Your task to perform on an android device: turn pop-ups off in chrome Image 0: 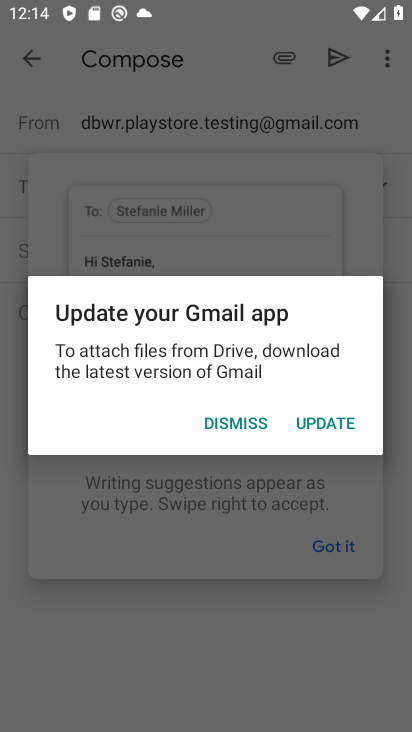
Step 0: press home button
Your task to perform on an android device: turn pop-ups off in chrome Image 1: 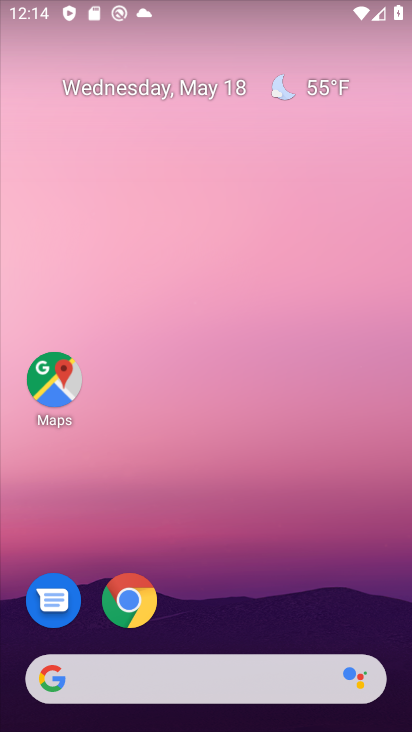
Step 1: click (131, 603)
Your task to perform on an android device: turn pop-ups off in chrome Image 2: 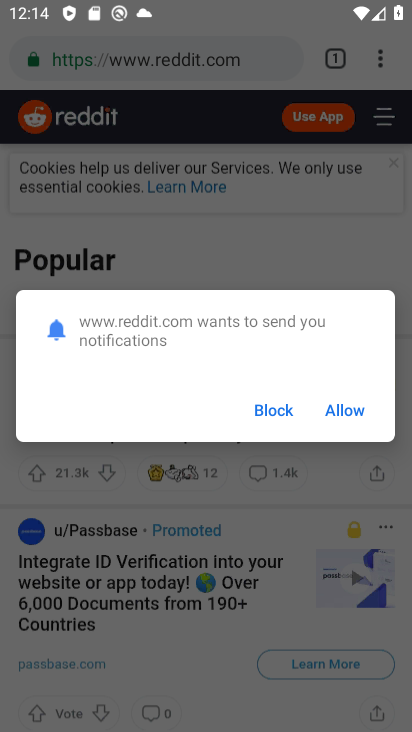
Step 2: click (345, 415)
Your task to perform on an android device: turn pop-ups off in chrome Image 3: 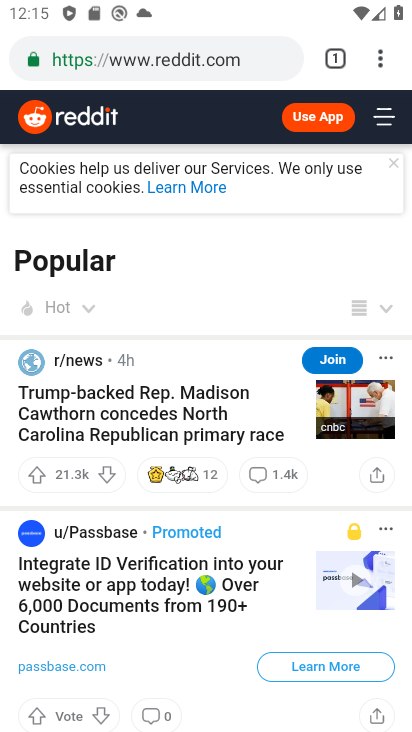
Step 3: drag from (378, 62) to (194, 627)
Your task to perform on an android device: turn pop-ups off in chrome Image 4: 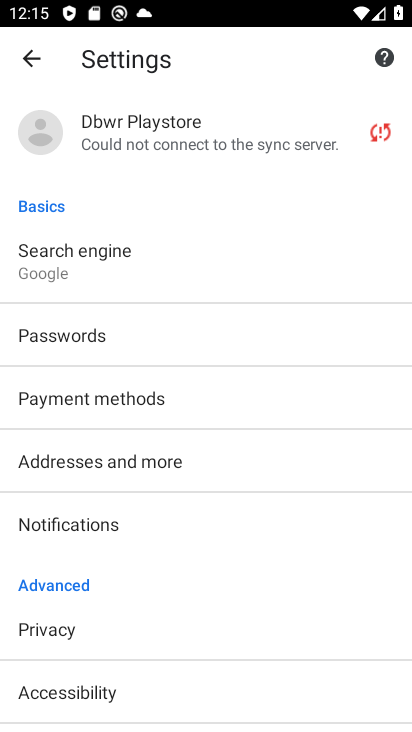
Step 4: drag from (94, 679) to (60, 178)
Your task to perform on an android device: turn pop-ups off in chrome Image 5: 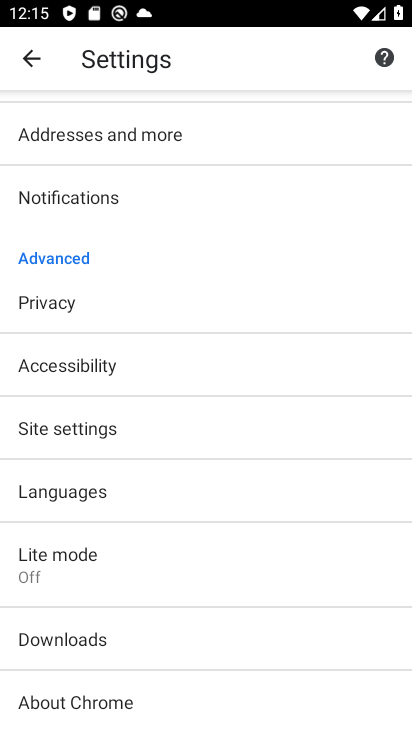
Step 5: click (79, 442)
Your task to perform on an android device: turn pop-ups off in chrome Image 6: 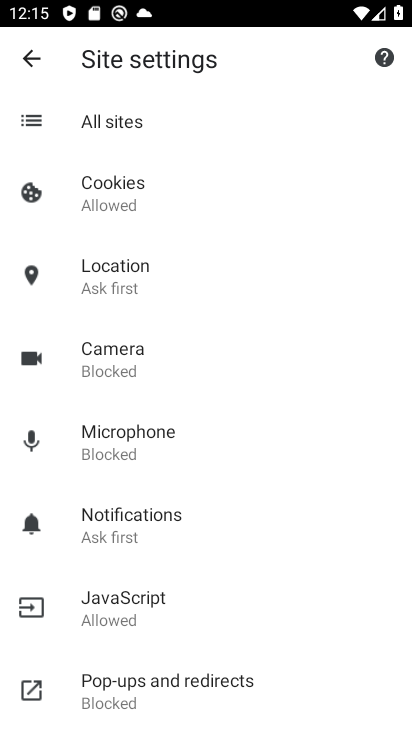
Step 6: click (153, 682)
Your task to perform on an android device: turn pop-ups off in chrome Image 7: 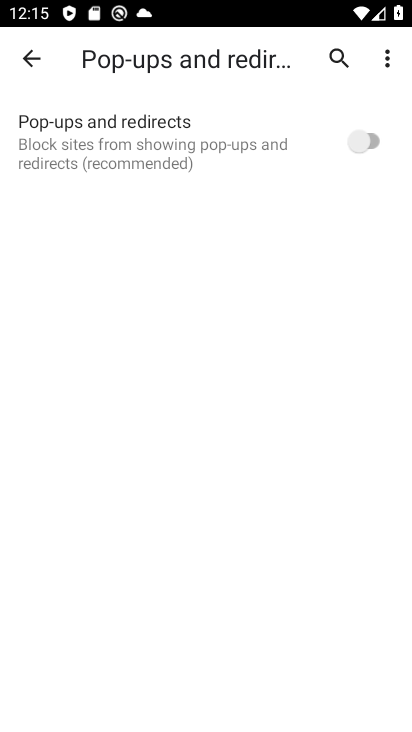
Step 7: task complete